Your task to perform on an android device: allow notifications from all sites in the chrome app Image 0: 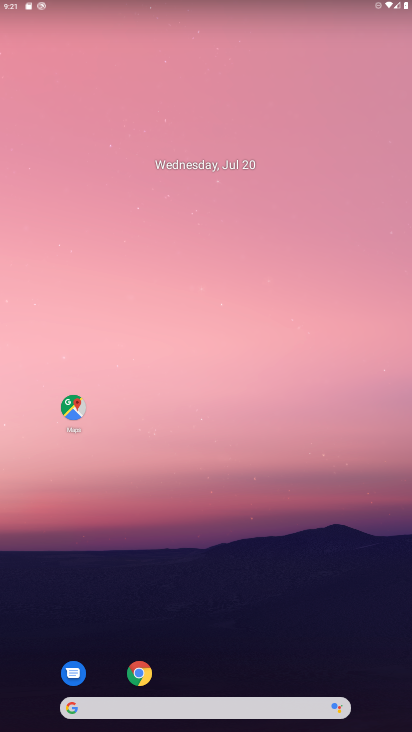
Step 0: drag from (208, 632) to (280, 186)
Your task to perform on an android device: allow notifications from all sites in the chrome app Image 1: 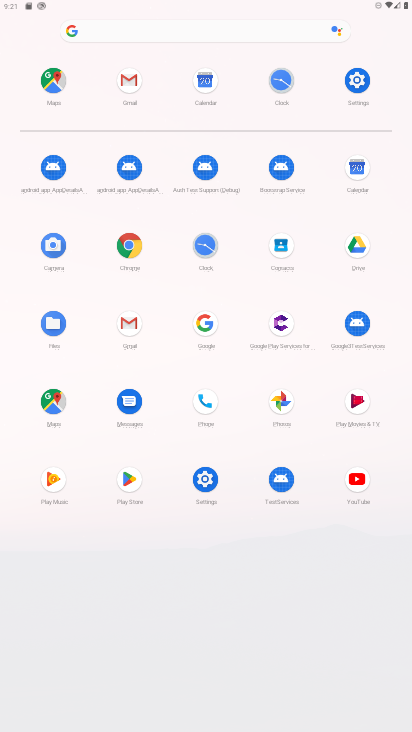
Step 1: click (129, 244)
Your task to perform on an android device: allow notifications from all sites in the chrome app Image 2: 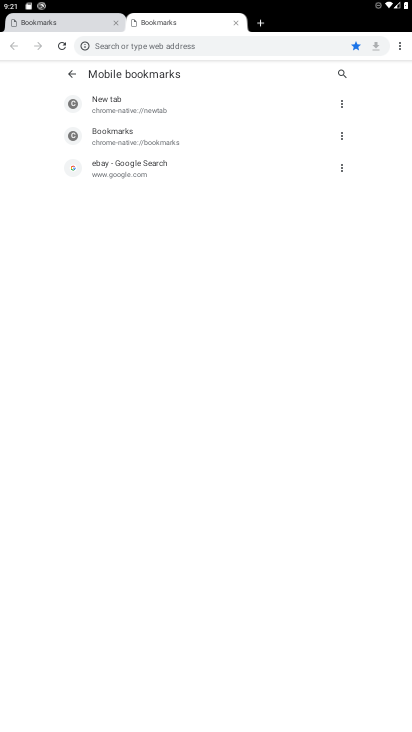
Step 2: drag from (396, 43) to (295, 207)
Your task to perform on an android device: allow notifications from all sites in the chrome app Image 3: 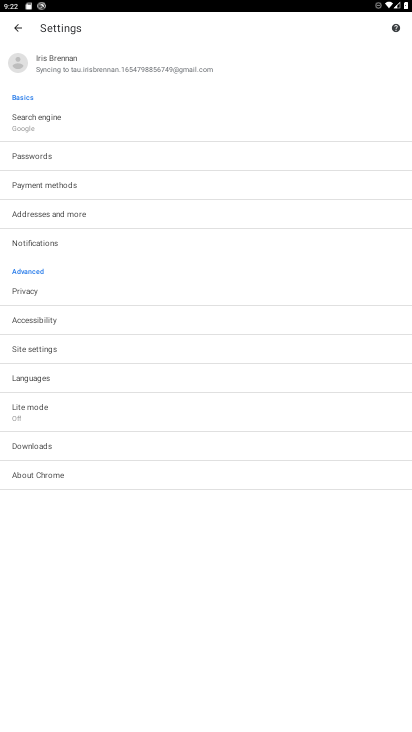
Step 3: click (58, 355)
Your task to perform on an android device: allow notifications from all sites in the chrome app Image 4: 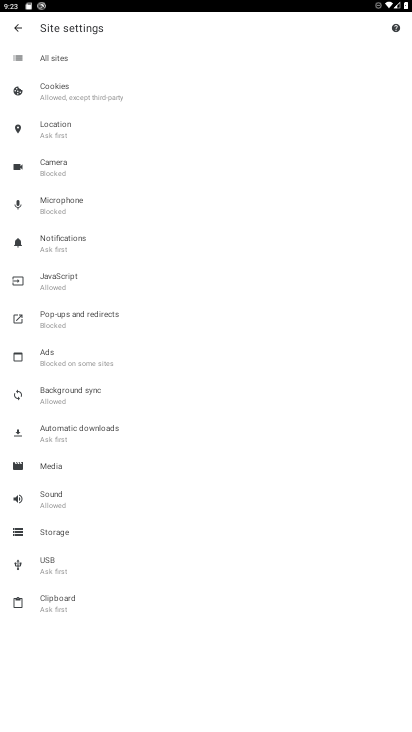
Step 4: click (74, 236)
Your task to perform on an android device: allow notifications from all sites in the chrome app Image 5: 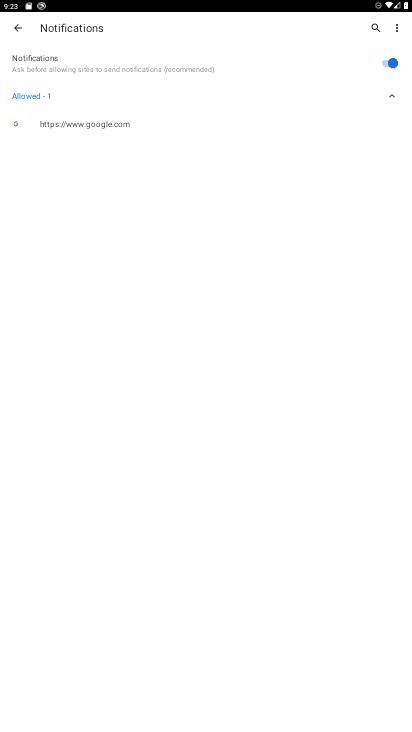
Step 5: task complete